Your task to perform on an android device: delete a single message in the gmail app Image 0: 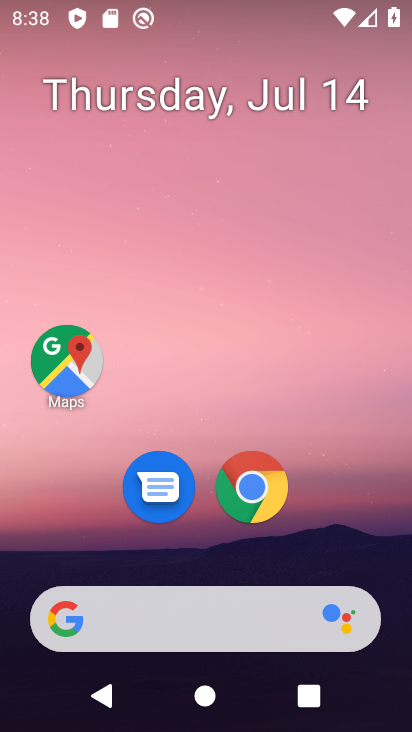
Step 0: drag from (198, 576) to (295, 7)
Your task to perform on an android device: delete a single message in the gmail app Image 1: 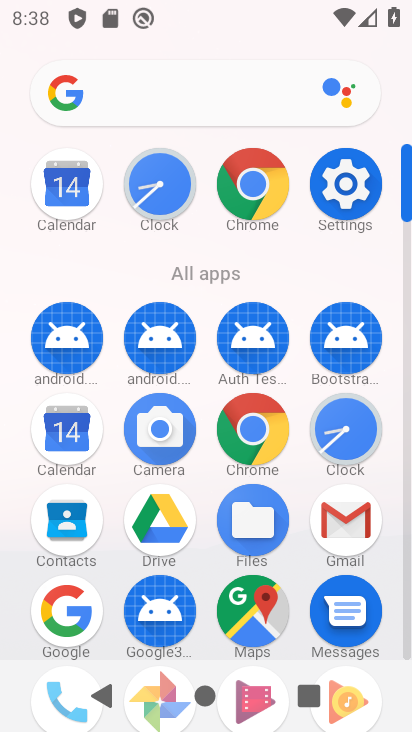
Step 1: click (343, 513)
Your task to perform on an android device: delete a single message in the gmail app Image 2: 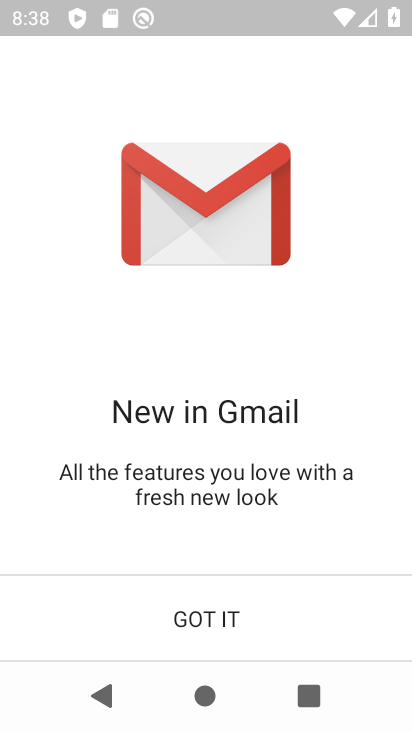
Step 2: click (203, 606)
Your task to perform on an android device: delete a single message in the gmail app Image 3: 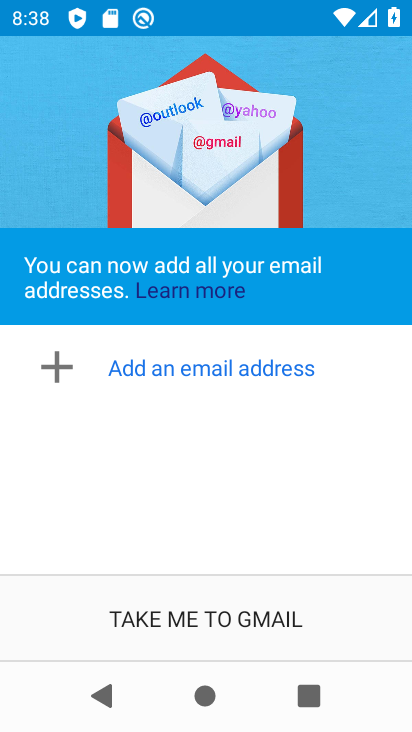
Step 3: click (207, 606)
Your task to perform on an android device: delete a single message in the gmail app Image 4: 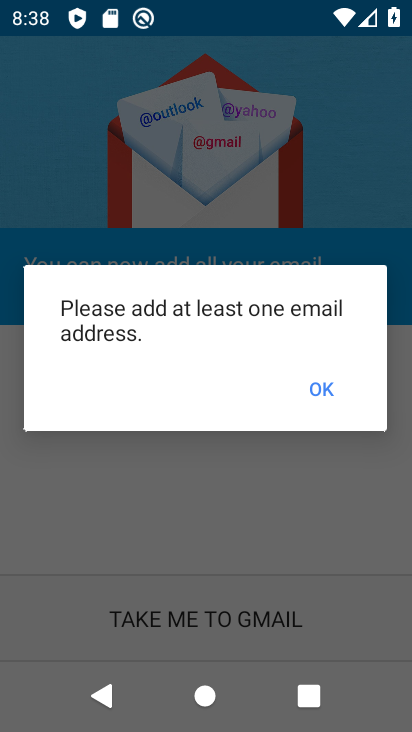
Step 4: click (327, 385)
Your task to perform on an android device: delete a single message in the gmail app Image 5: 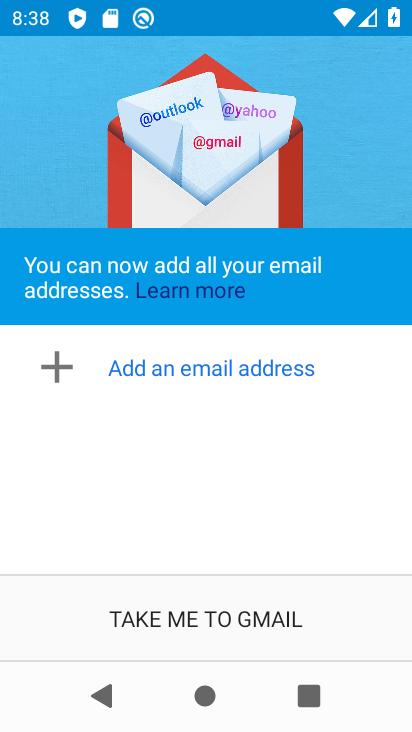
Step 5: press back button
Your task to perform on an android device: delete a single message in the gmail app Image 6: 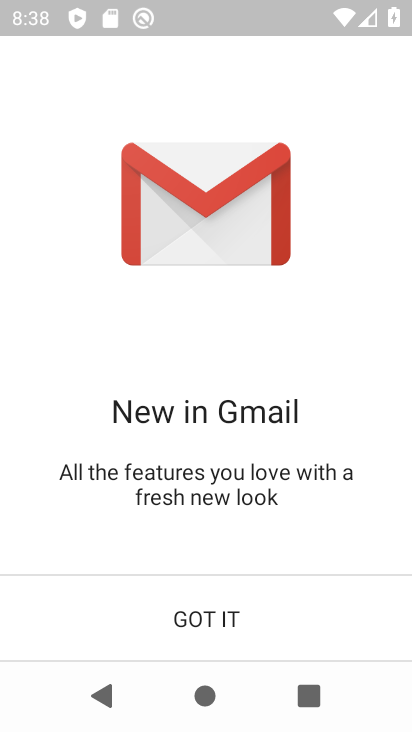
Step 6: click (227, 629)
Your task to perform on an android device: delete a single message in the gmail app Image 7: 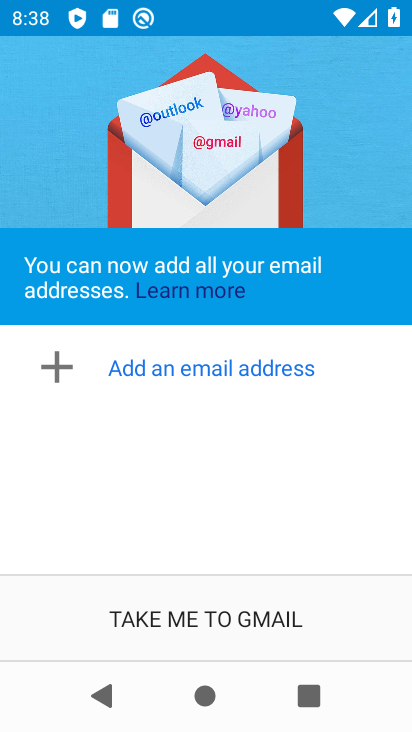
Step 7: task complete